Your task to perform on an android device: Open CNN.com Image 0: 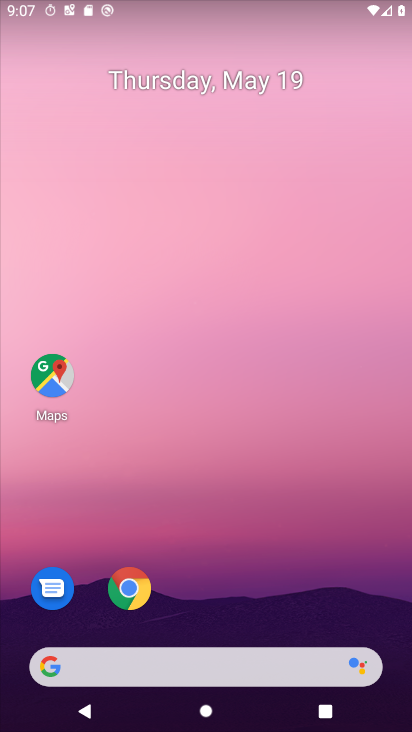
Step 0: press home button
Your task to perform on an android device: Open CNN.com Image 1: 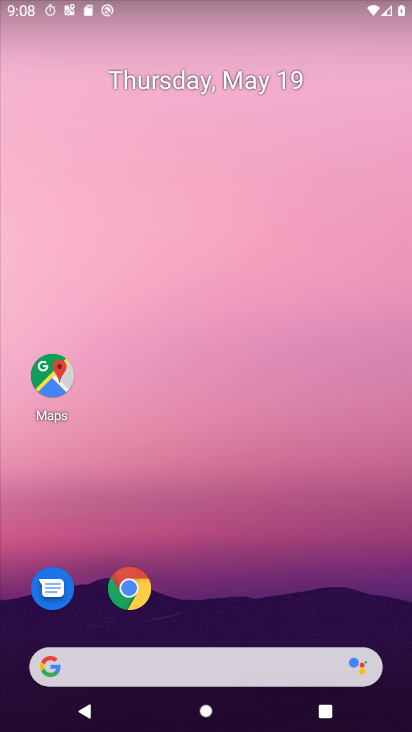
Step 1: click (123, 592)
Your task to perform on an android device: Open CNN.com Image 2: 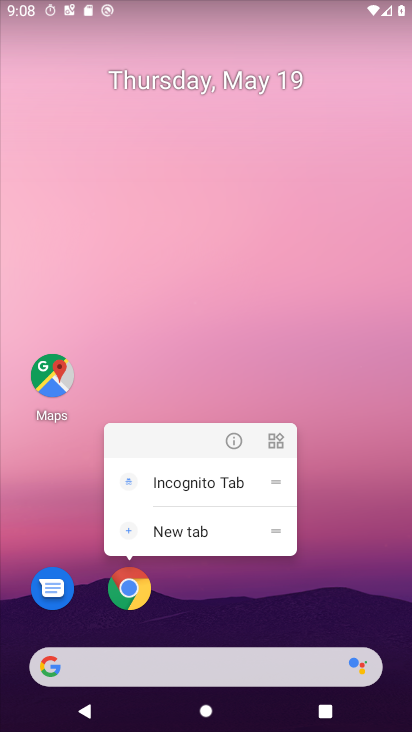
Step 2: click (142, 582)
Your task to perform on an android device: Open CNN.com Image 3: 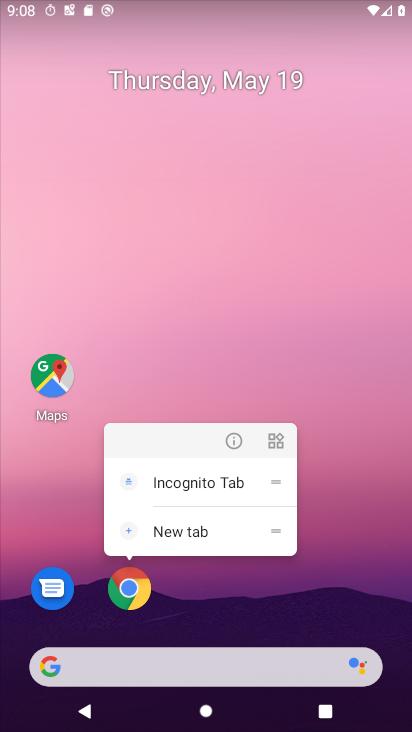
Step 3: click (138, 587)
Your task to perform on an android device: Open CNN.com Image 4: 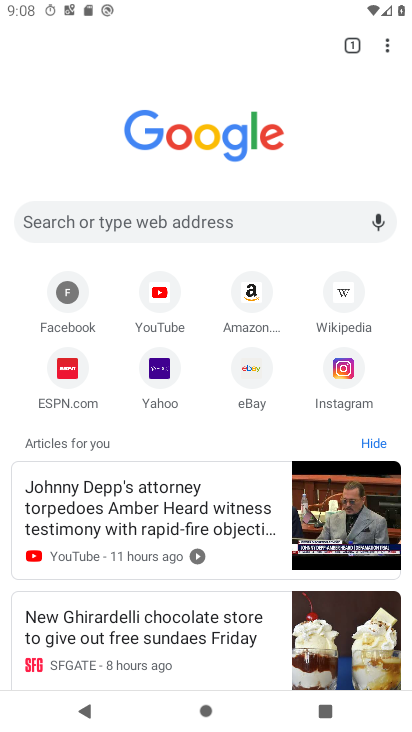
Step 4: drag from (388, 47) to (152, 44)
Your task to perform on an android device: Open CNN.com Image 5: 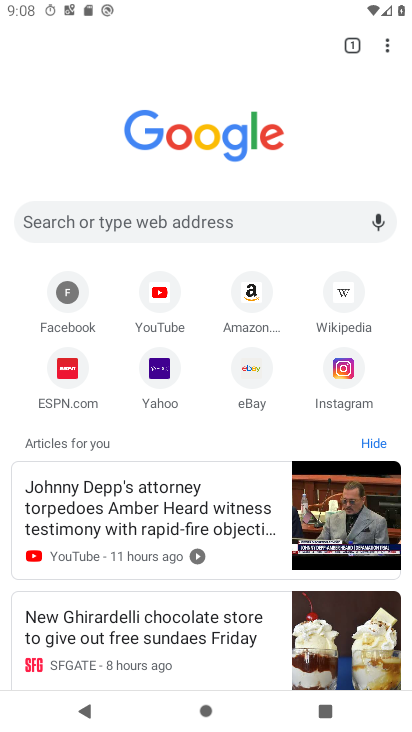
Step 5: click (129, 214)
Your task to perform on an android device: Open CNN.com Image 6: 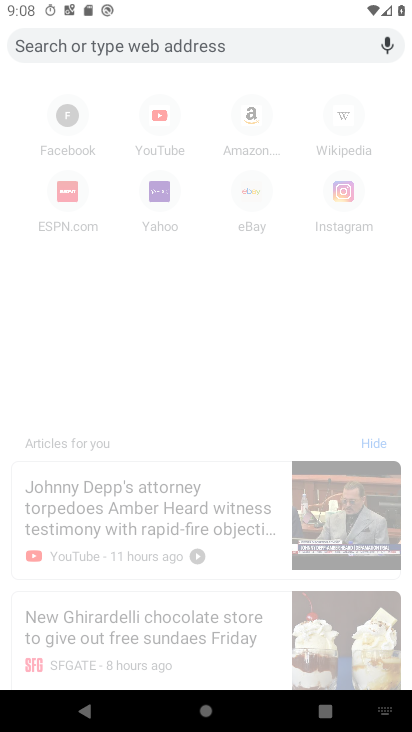
Step 6: type "cnn.com"
Your task to perform on an android device: Open CNN.com Image 7: 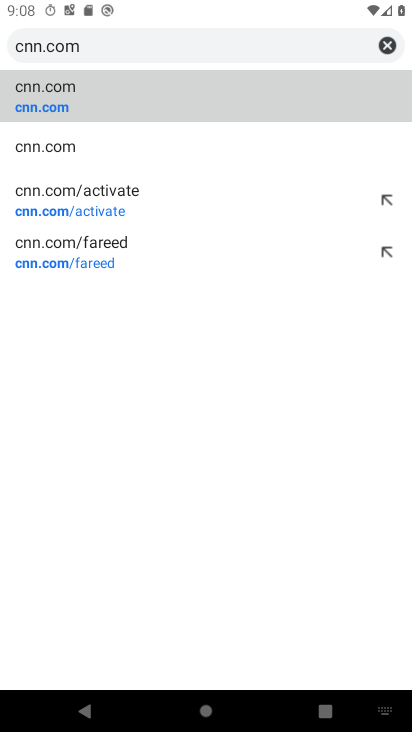
Step 7: click (132, 97)
Your task to perform on an android device: Open CNN.com Image 8: 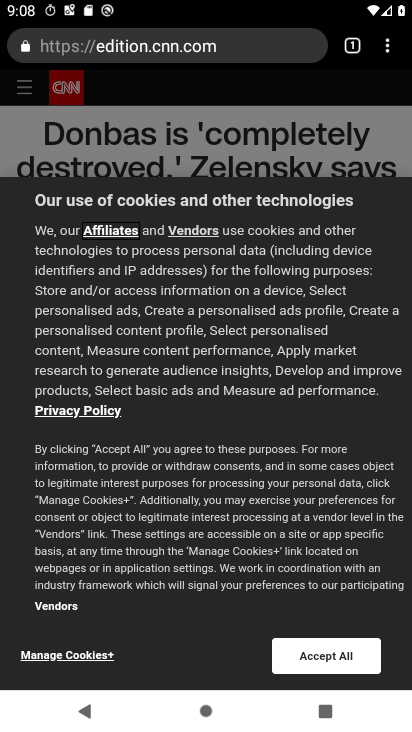
Step 8: click (314, 659)
Your task to perform on an android device: Open CNN.com Image 9: 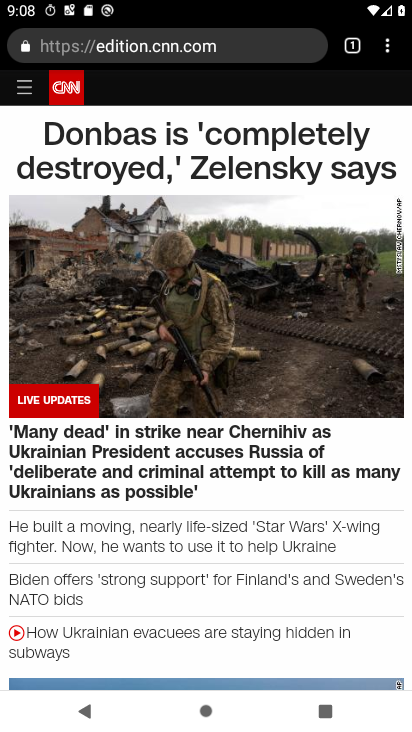
Step 9: task complete